Your task to perform on an android device: turn notification dots on Image 0: 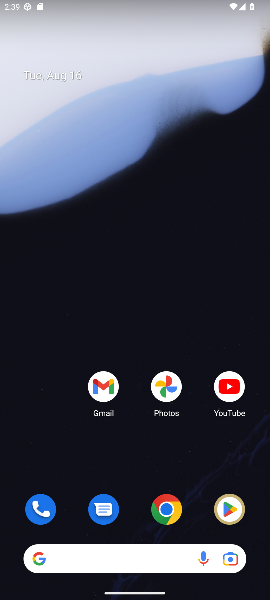
Step 0: drag from (140, 450) to (142, 38)
Your task to perform on an android device: turn notification dots on Image 1: 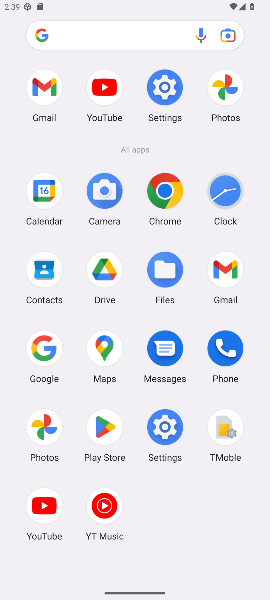
Step 1: click (156, 86)
Your task to perform on an android device: turn notification dots on Image 2: 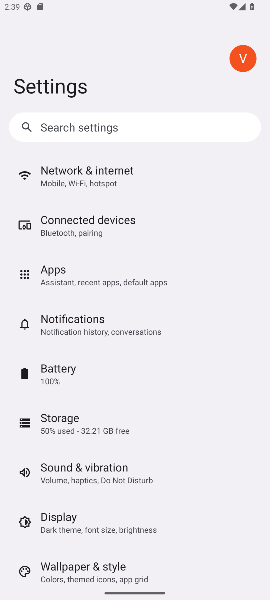
Step 2: click (103, 317)
Your task to perform on an android device: turn notification dots on Image 3: 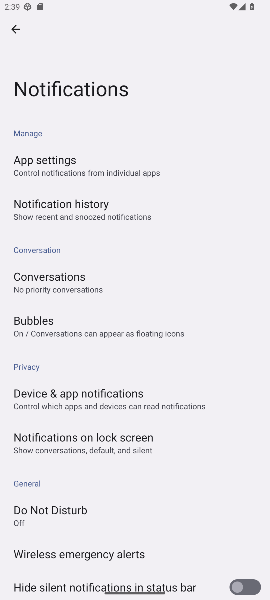
Step 3: task complete